Your task to perform on an android device: open app "AliExpress" (install if not already installed) Image 0: 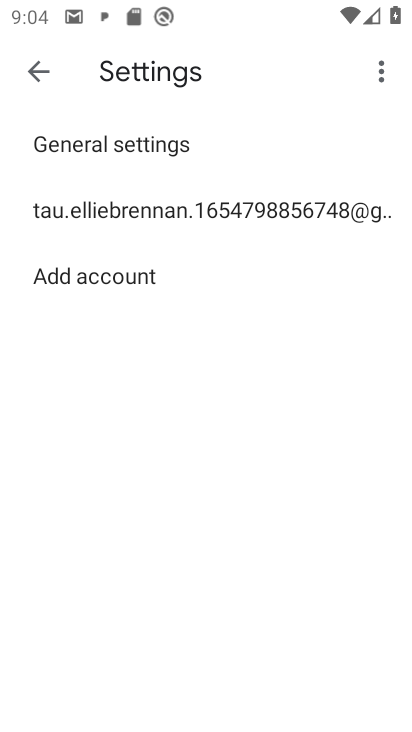
Step 0: press home button
Your task to perform on an android device: open app "AliExpress" (install if not already installed) Image 1: 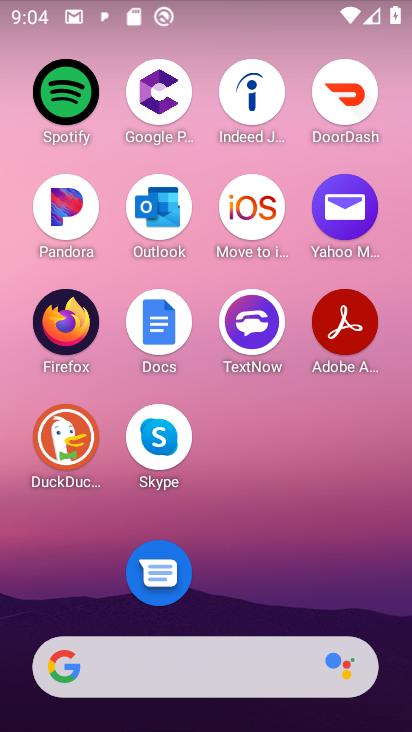
Step 1: drag from (239, 574) to (243, 71)
Your task to perform on an android device: open app "AliExpress" (install if not already installed) Image 2: 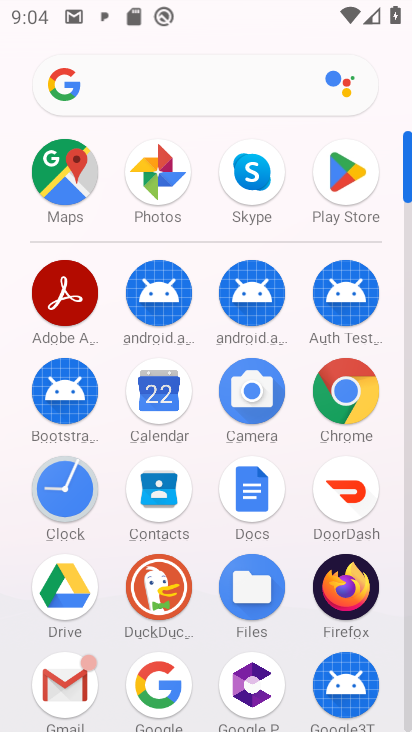
Step 2: click (338, 194)
Your task to perform on an android device: open app "AliExpress" (install if not already installed) Image 3: 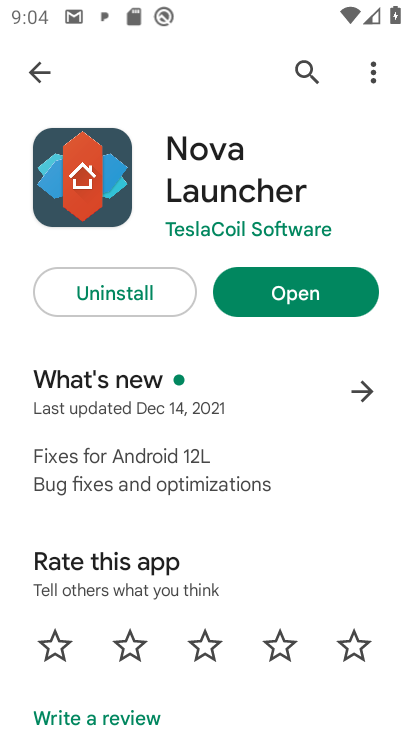
Step 3: click (30, 73)
Your task to perform on an android device: open app "AliExpress" (install if not already installed) Image 4: 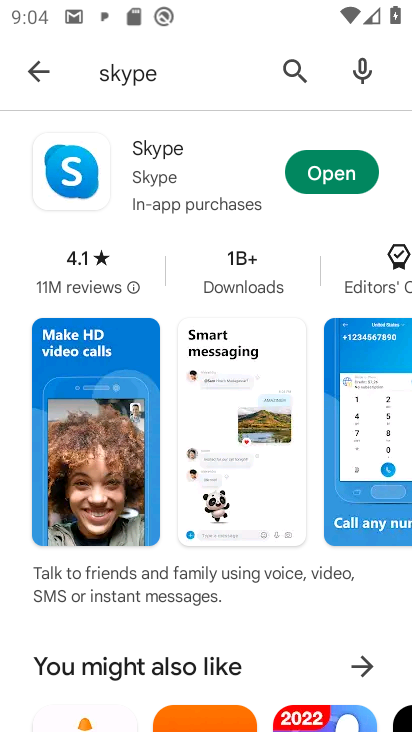
Step 4: click (157, 78)
Your task to perform on an android device: open app "AliExpress" (install if not already installed) Image 5: 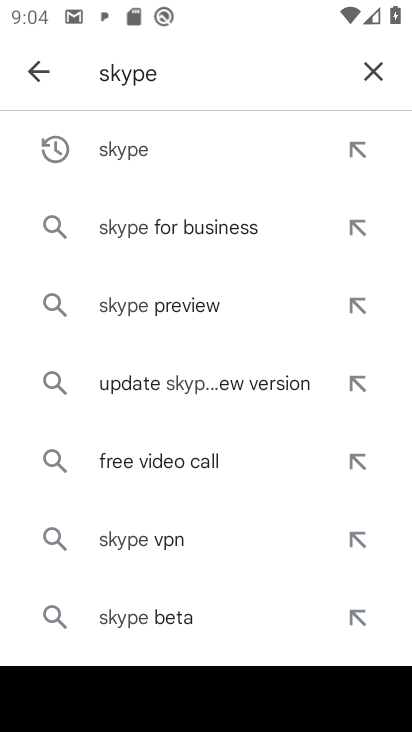
Step 5: click (366, 63)
Your task to perform on an android device: open app "AliExpress" (install if not already installed) Image 6: 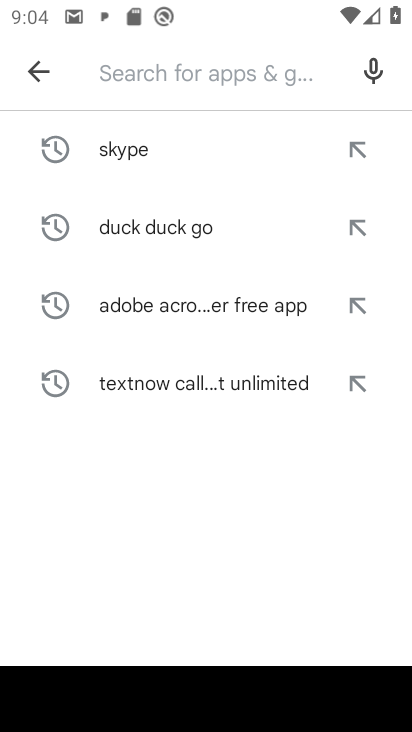
Step 6: type "Ali Express"
Your task to perform on an android device: open app "AliExpress" (install if not already installed) Image 7: 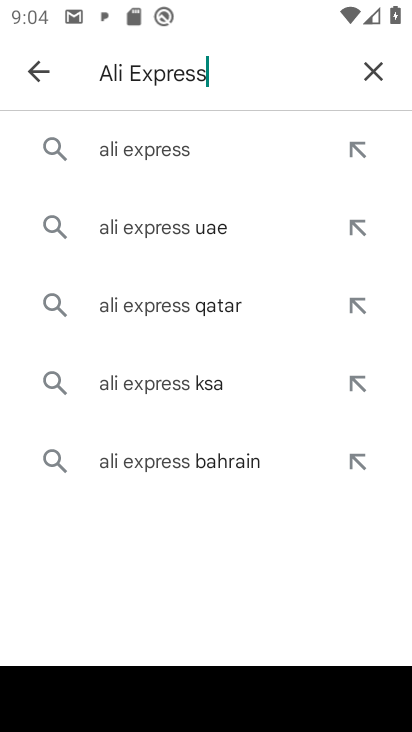
Step 7: click (160, 136)
Your task to perform on an android device: open app "AliExpress" (install if not already installed) Image 8: 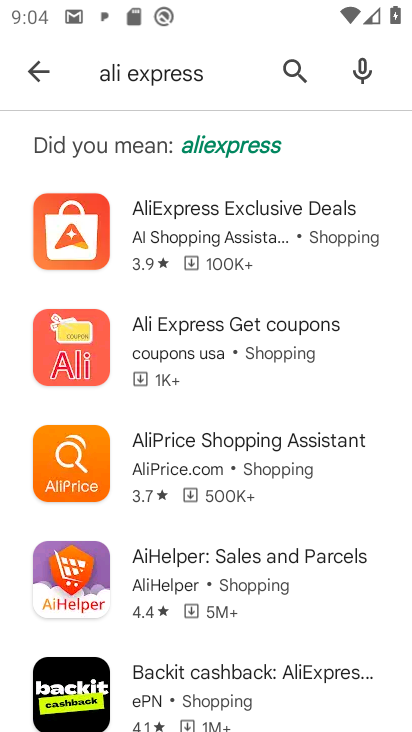
Step 8: click (180, 228)
Your task to perform on an android device: open app "AliExpress" (install if not already installed) Image 9: 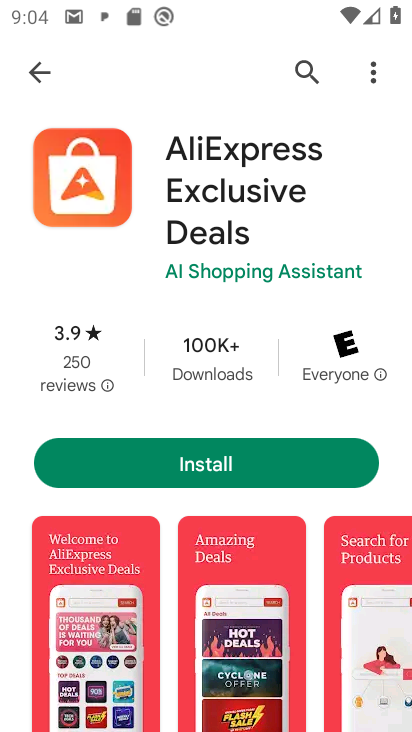
Step 9: click (242, 459)
Your task to perform on an android device: open app "AliExpress" (install if not already installed) Image 10: 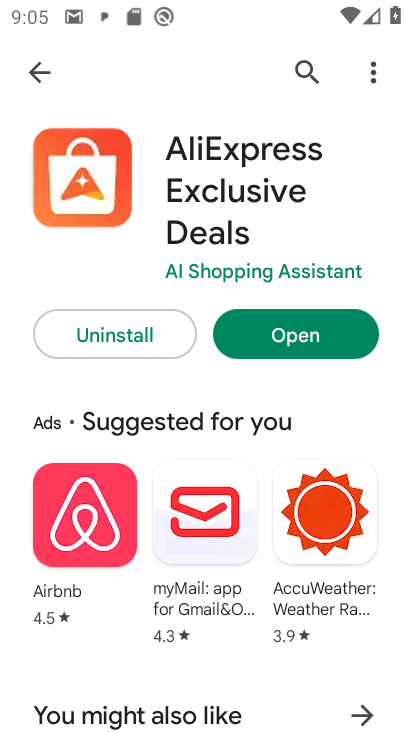
Step 10: click (281, 346)
Your task to perform on an android device: open app "AliExpress" (install if not already installed) Image 11: 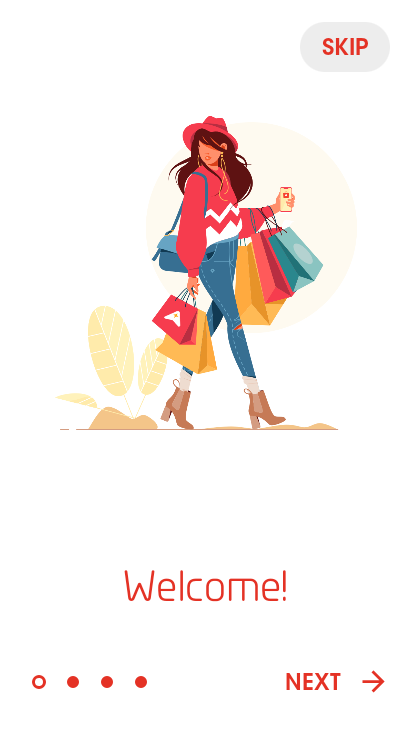
Step 11: click (342, 34)
Your task to perform on an android device: open app "AliExpress" (install if not already installed) Image 12: 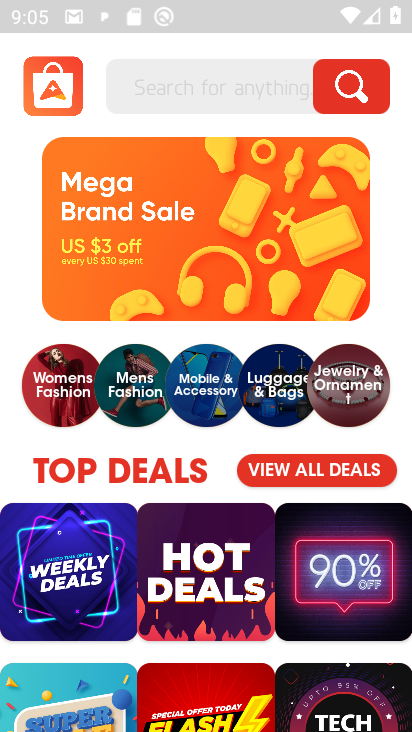
Step 12: task complete